Your task to perform on an android device: toggle improve location accuracy Image 0: 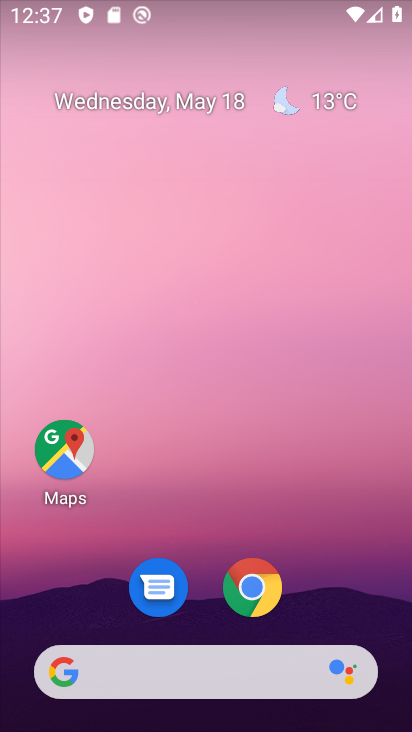
Step 0: drag from (200, 600) to (299, 2)
Your task to perform on an android device: toggle improve location accuracy Image 1: 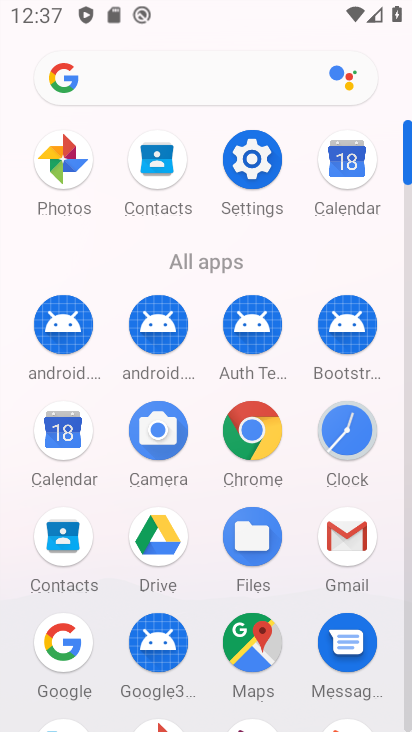
Step 1: click (254, 157)
Your task to perform on an android device: toggle improve location accuracy Image 2: 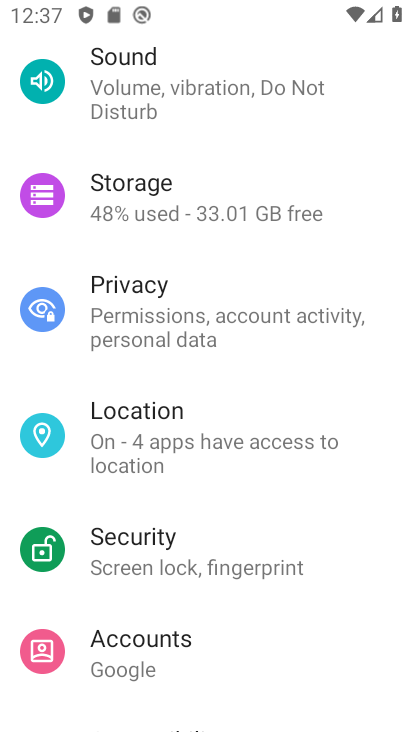
Step 2: click (158, 439)
Your task to perform on an android device: toggle improve location accuracy Image 3: 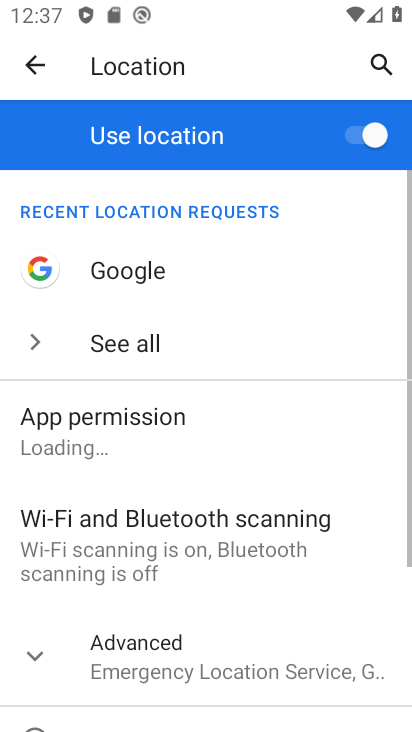
Step 3: drag from (149, 632) to (231, 213)
Your task to perform on an android device: toggle improve location accuracy Image 4: 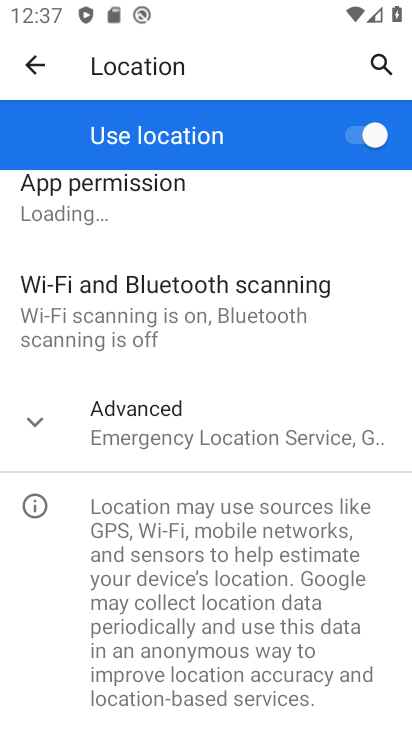
Step 4: click (114, 415)
Your task to perform on an android device: toggle improve location accuracy Image 5: 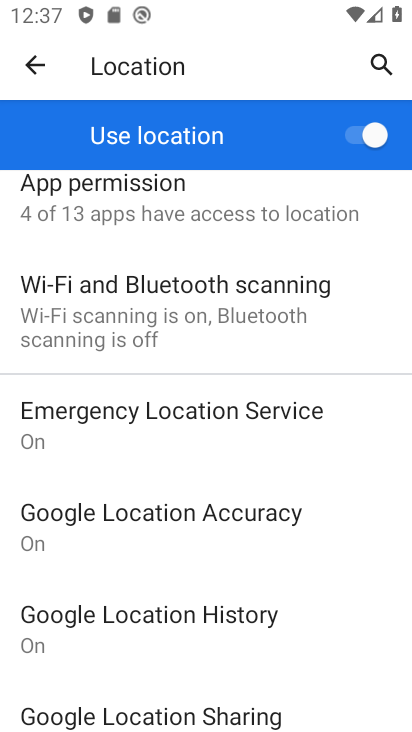
Step 5: click (100, 519)
Your task to perform on an android device: toggle improve location accuracy Image 6: 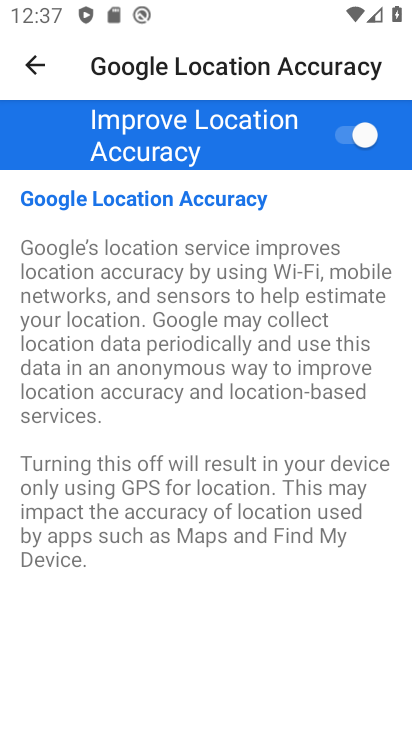
Step 6: click (349, 134)
Your task to perform on an android device: toggle improve location accuracy Image 7: 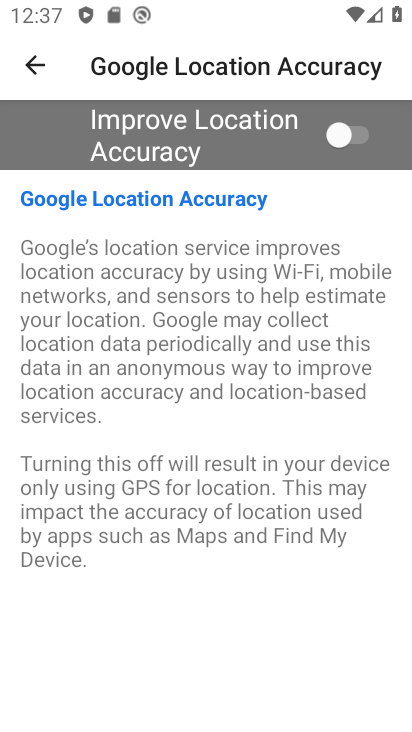
Step 7: task complete